Your task to perform on an android device: turn on wifi Image 0: 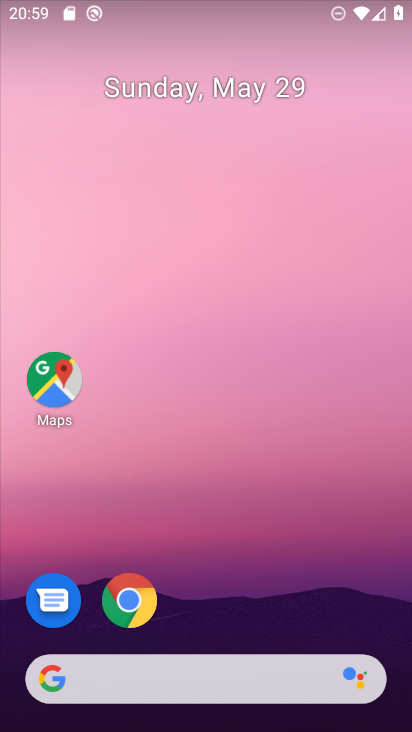
Step 0: drag from (311, 604) to (315, 195)
Your task to perform on an android device: turn on wifi Image 1: 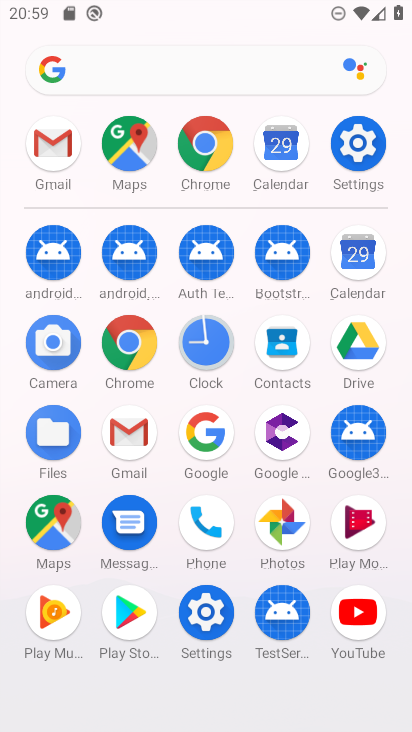
Step 1: click (353, 143)
Your task to perform on an android device: turn on wifi Image 2: 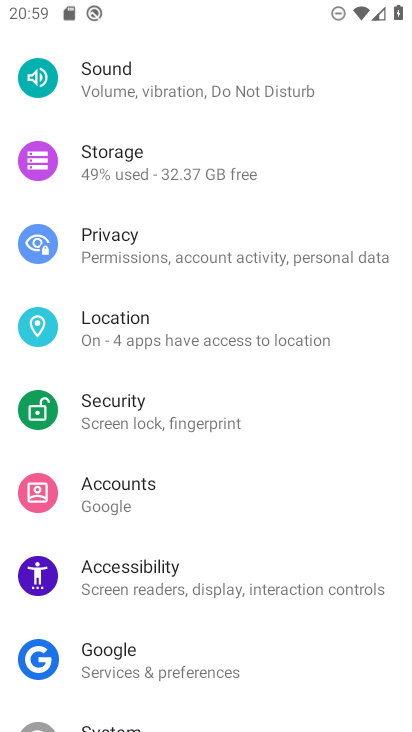
Step 2: drag from (194, 147) to (212, 646)
Your task to perform on an android device: turn on wifi Image 3: 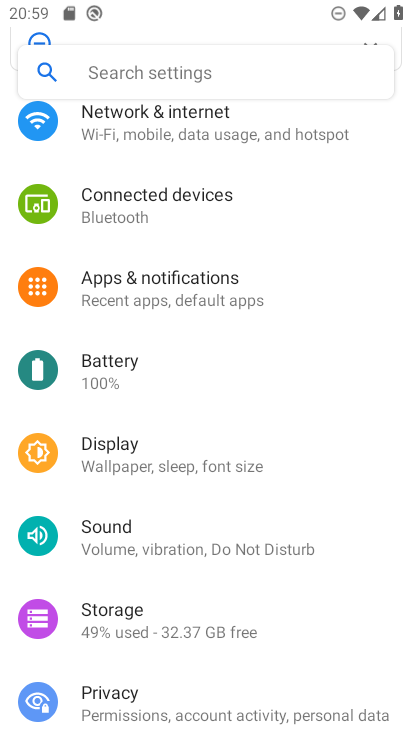
Step 3: drag from (259, 206) to (257, 614)
Your task to perform on an android device: turn on wifi Image 4: 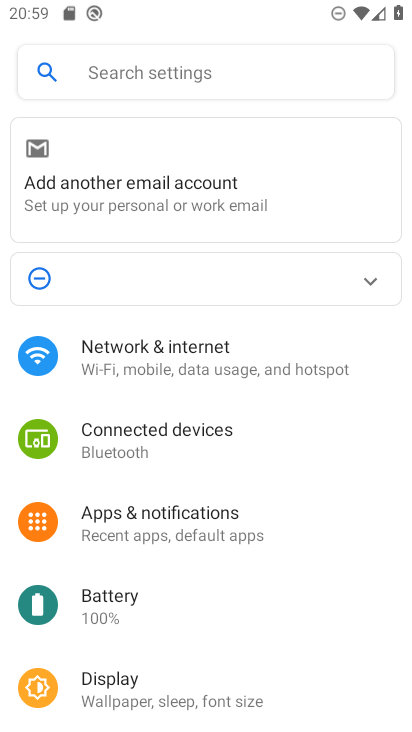
Step 4: click (220, 362)
Your task to perform on an android device: turn on wifi Image 5: 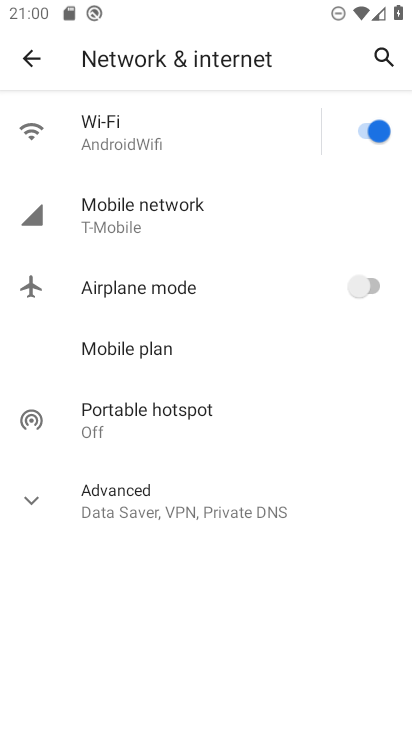
Step 5: task complete